Your task to perform on an android device: toggle pop-ups in chrome Image 0: 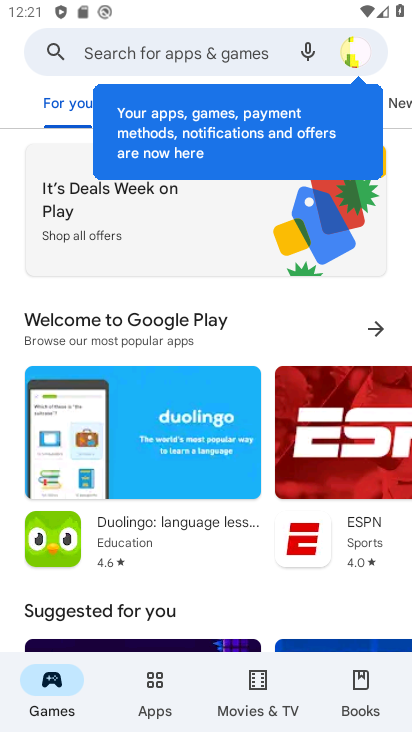
Step 0: press home button
Your task to perform on an android device: toggle pop-ups in chrome Image 1: 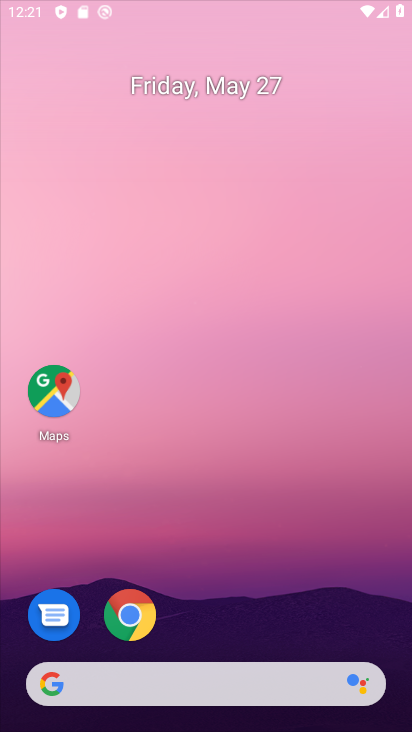
Step 1: drag from (221, 526) to (367, 95)
Your task to perform on an android device: toggle pop-ups in chrome Image 2: 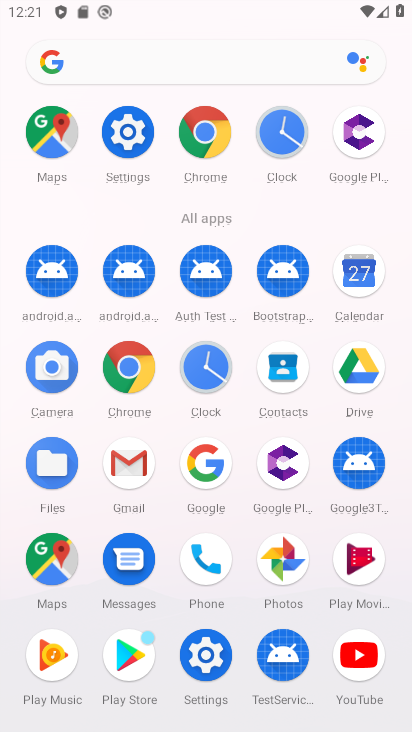
Step 2: click (139, 387)
Your task to perform on an android device: toggle pop-ups in chrome Image 3: 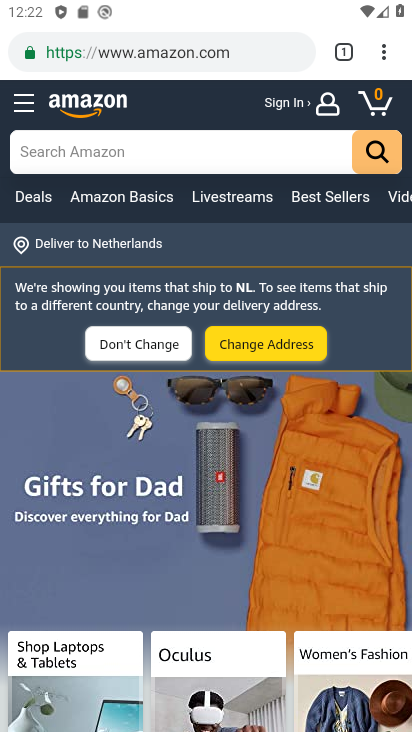
Step 3: click (383, 57)
Your task to perform on an android device: toggle pop-ups in chrome Image 4: 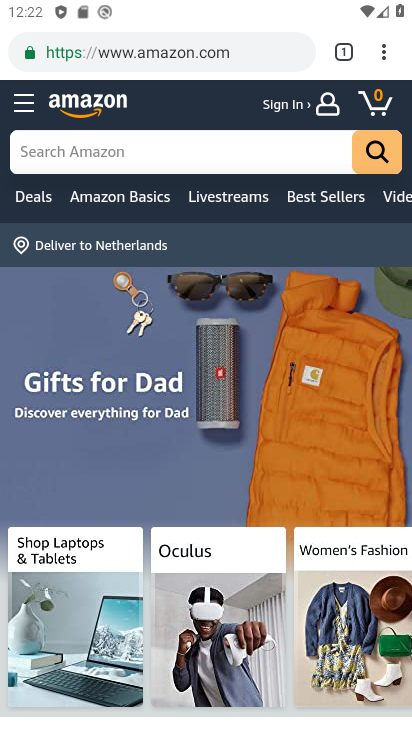
Step 4: click (384, 66)
Your task to perform on an android device: toggle pop-ups in chrome Image 5: 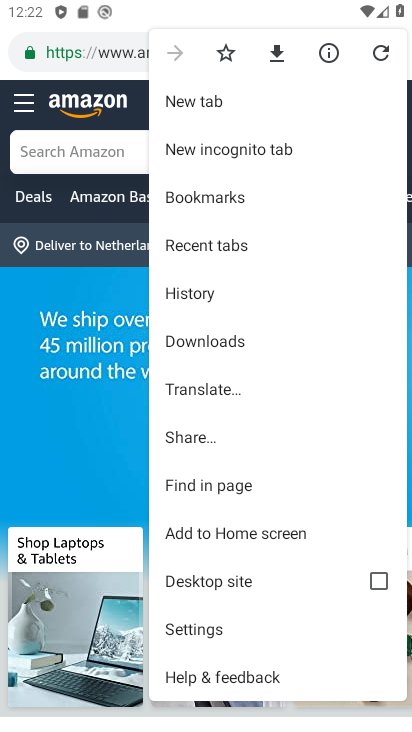
Step 5: drag from (247, 463) to (276, 184)
Your task to perform on an android device: toggle pop-ups in chrome Image 6: 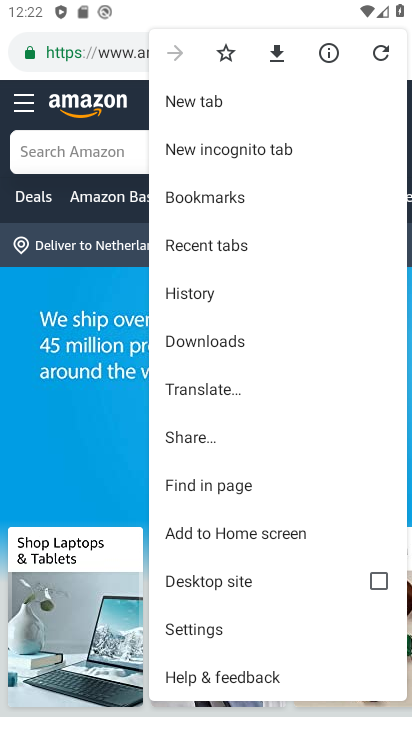
Step 6: click (222, 628)
Your task to perform on an android device: toggle pop-ups in chrome Image 7: 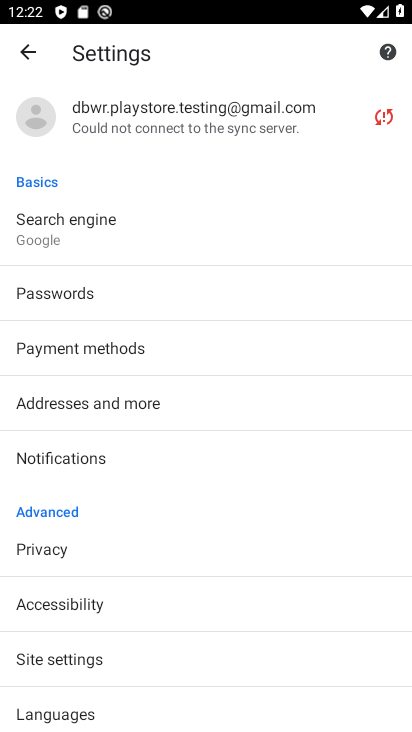
Step 7: click (146, 653)
Your task to perform on an android device: toggle pop-ups in chrome Image 8: 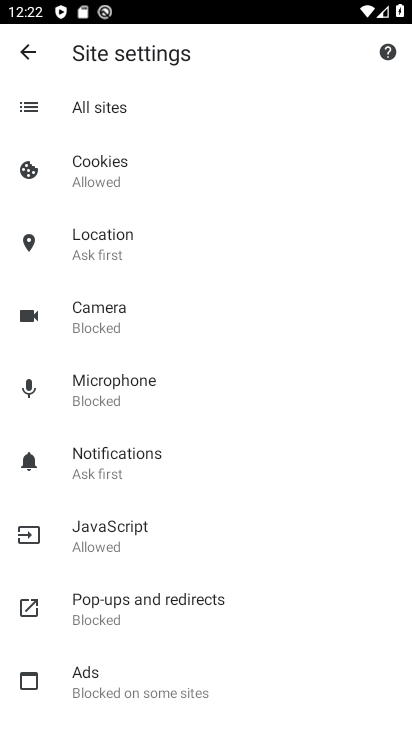
Step 8: click (178, 606)
Your task to perform on an android device: toggle pop-ups in chrome Image 9: 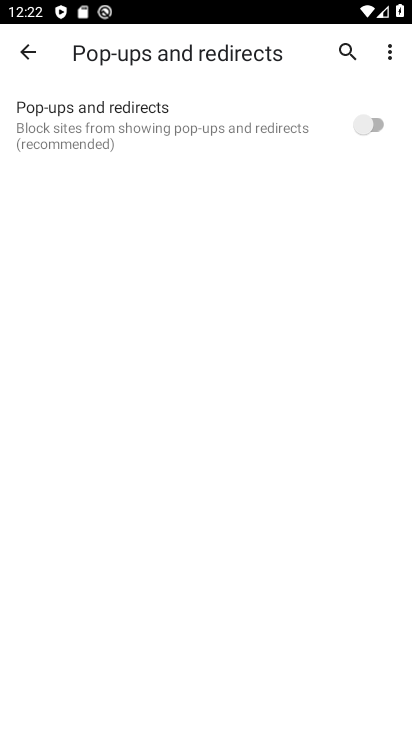
Step 9: click (362, 119)
Your task to perform on an android device: toggle pop-ups in chrome Image 10: 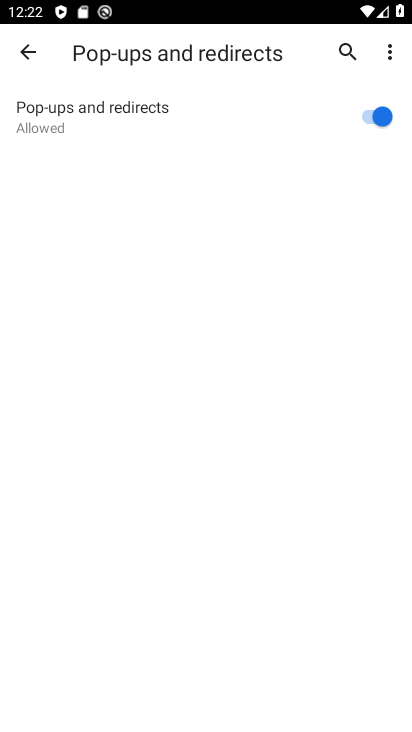
Step 10: task complete